Your task to perform on an android device: change keyboard looks Image 0: 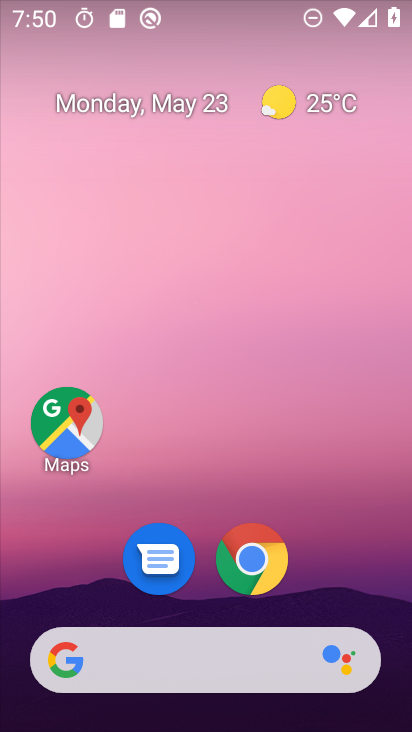
Step 0: drag from (383, 604) to (251, 48)
Your task to perform on an android device: change keyboard looks Image 1: 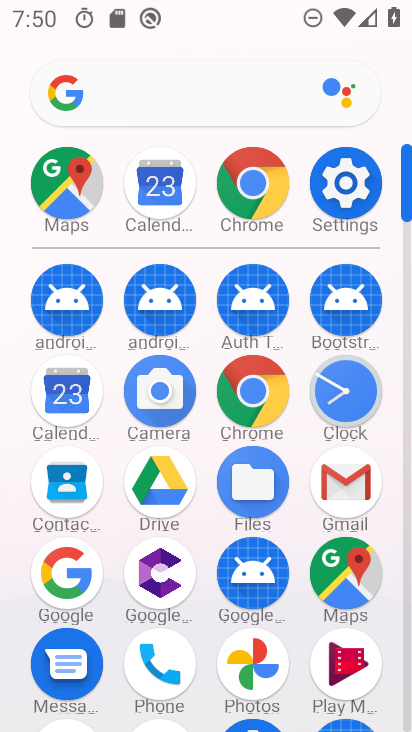
Step 1: click (352, 188)
Your task to perform on an android device: change keyboard looks Image 2: 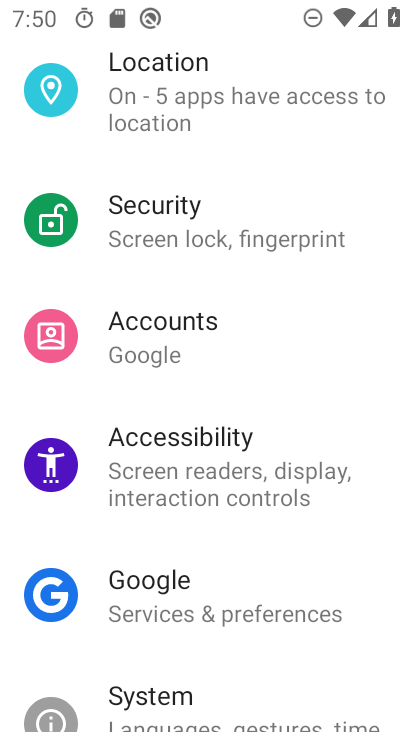
Step 2: drag from (175, 672) to (178, 43)
Your task to perform on an android device: change keyboard looks Image 3: 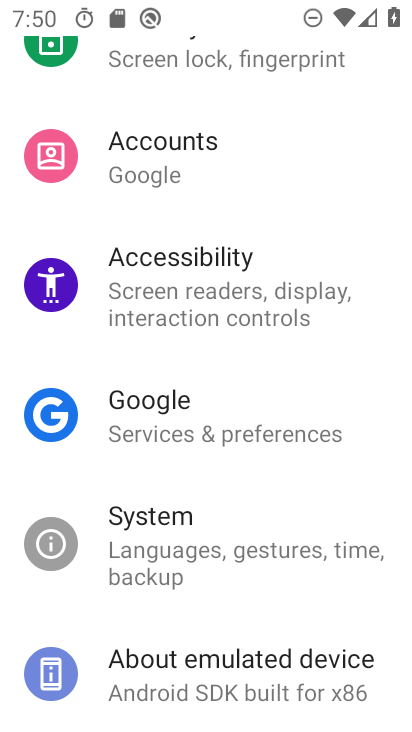
Step 3: click (166, 568)
Your task to perform on an android device: change keyboard looks Image 4: 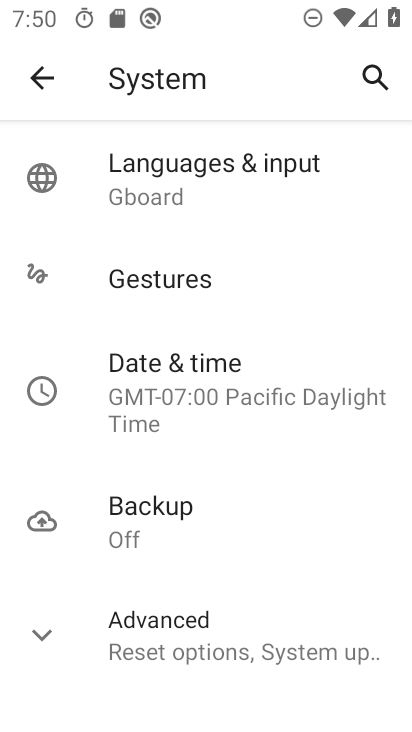
Step 4: click (172, 206)
Your task to perform on an android device: change keyboard looks Image 5: 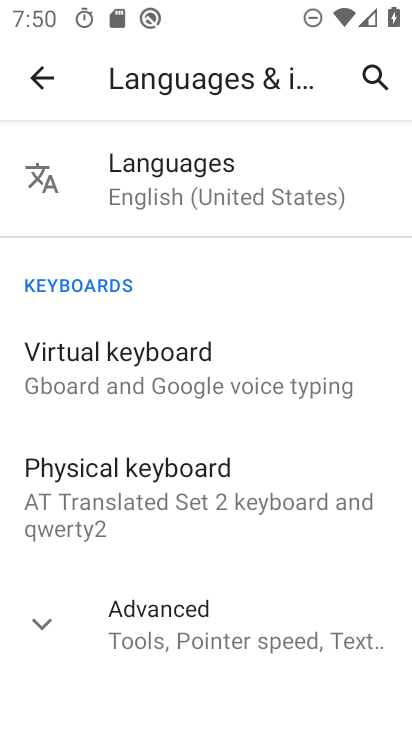
Step 5: click (175, 348)
Your task to perform on an android device: change keyboard looks Image 6: 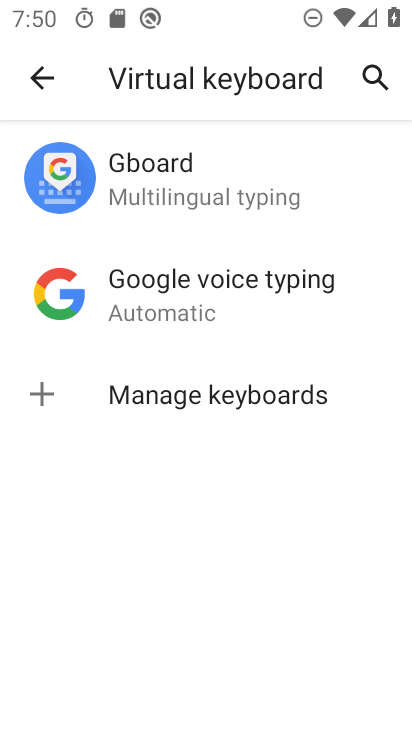
Step 6: click (174, 191)
Your task to perform on an android device: change keyboard looks Image 7: 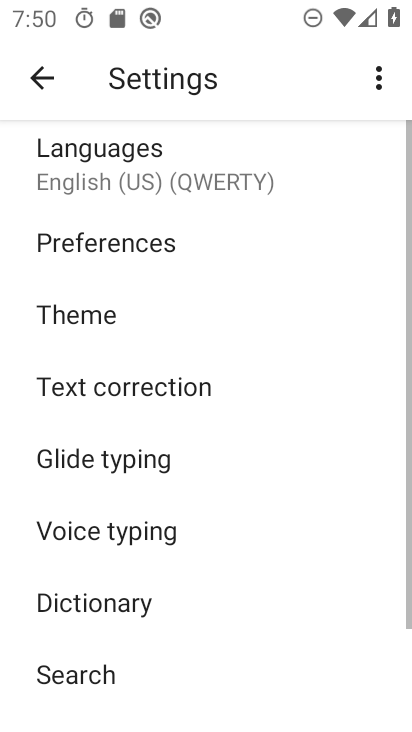
Step 7: click (153, 301)
Your task to perform on an android device: change keyboard looks Image 8: 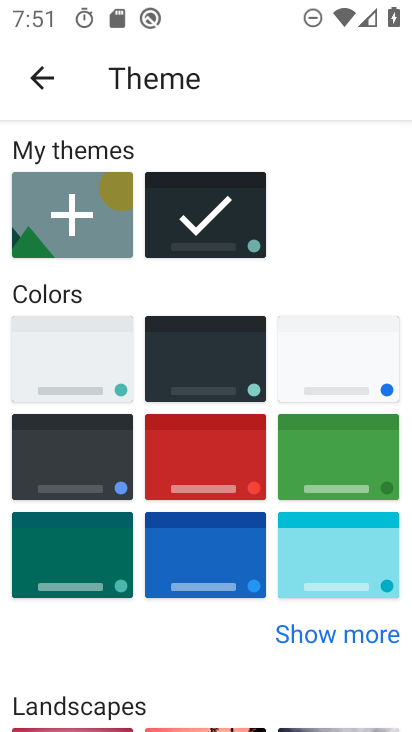
Step 8: click (88, 462)
Your task to perform on an android device: change keyboard looks Image 9: 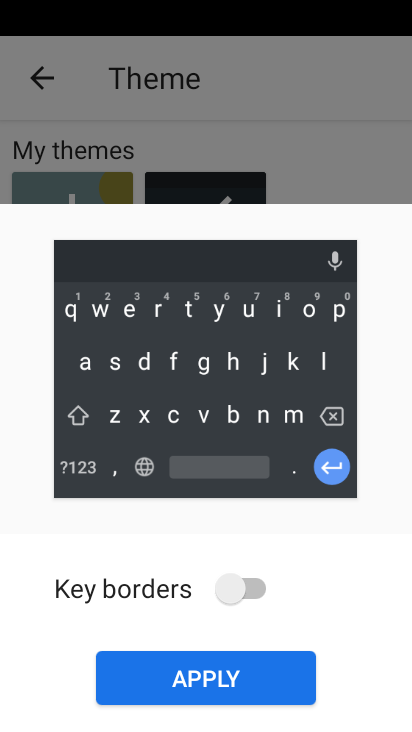
Step 9: click (236, 678)
Your task to perform on an android device: change keyboard looks Image 10: 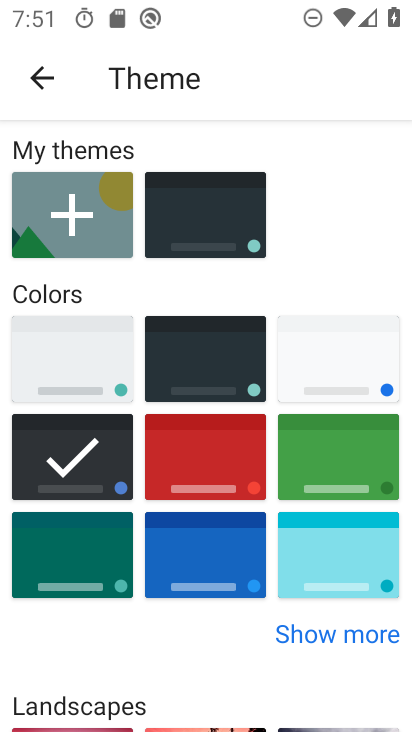
Step 10: task complete